Your task to perform on an android device: change the clock display to digital Image 0: 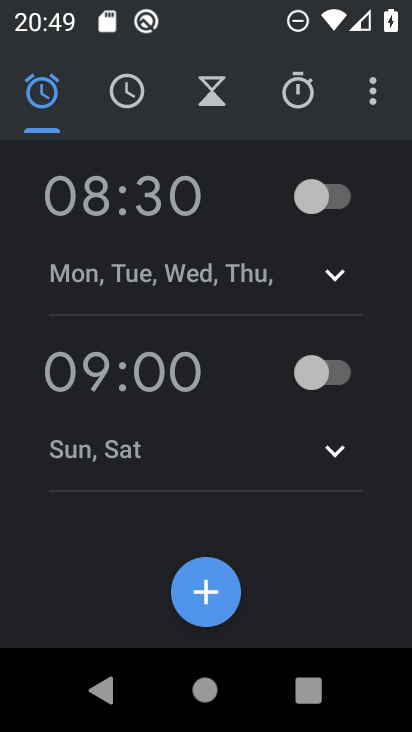
Step 0: click (381, 98)
Your task to perform on an android device: change the clock display to digital Image 1: 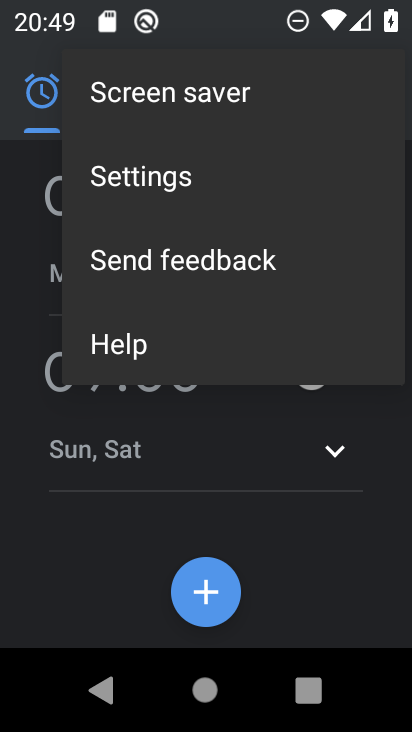
Step 1: click (165, 180)
Your task to perform on an android device: change the clock display to digital Image 2: 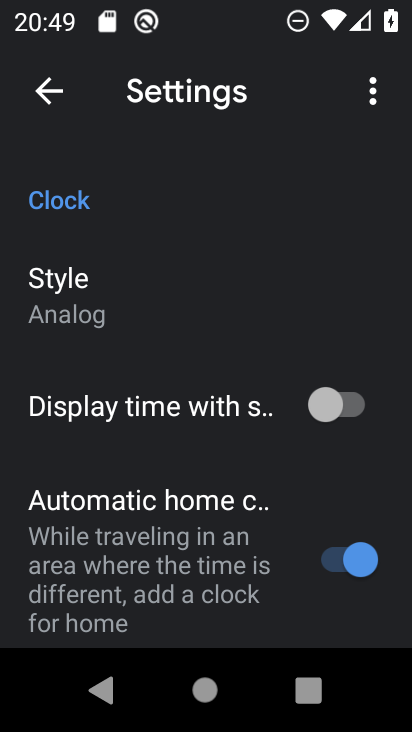
Step 2: click (66, 286)
Your task to perform on an android device: change the clock display to digital Image 3: 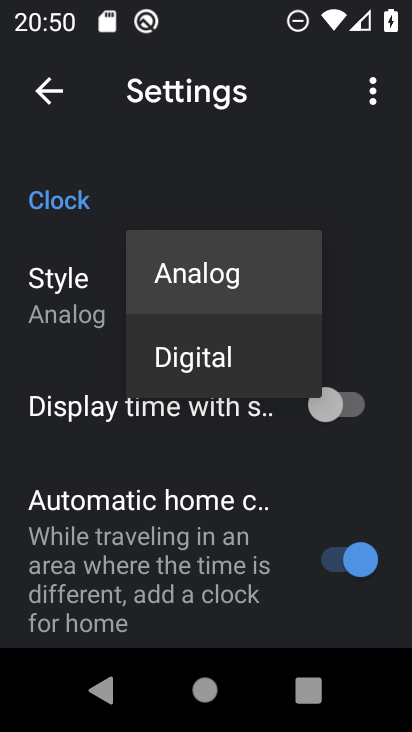
Step 3: click (211, 363)
Your task to perform on an android device: change the clock display to digital Image 4: 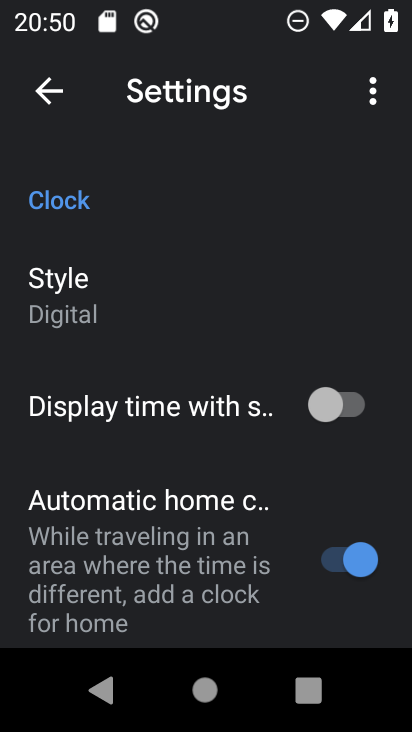
Step 4: task complete